Your task to perform on an android device: turn off smart reply in the gmail app Image 0: 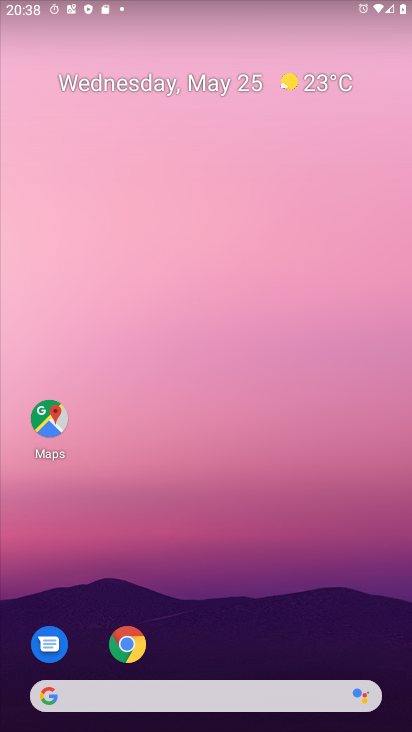
Step 0: drag from (308, 725) to (240, 205)
Your task to perform on an android device: turn off smart reply in the gmail app Image 1: 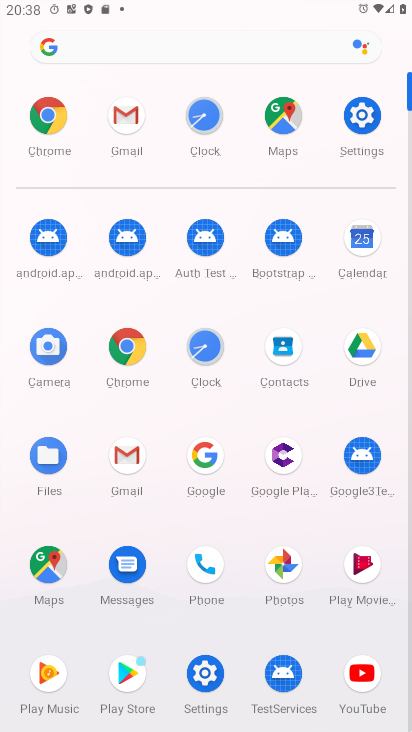
Step 1: click (132, 470)
Your task to perform on an android device: turn off smart reply in the gmail app Image 2: 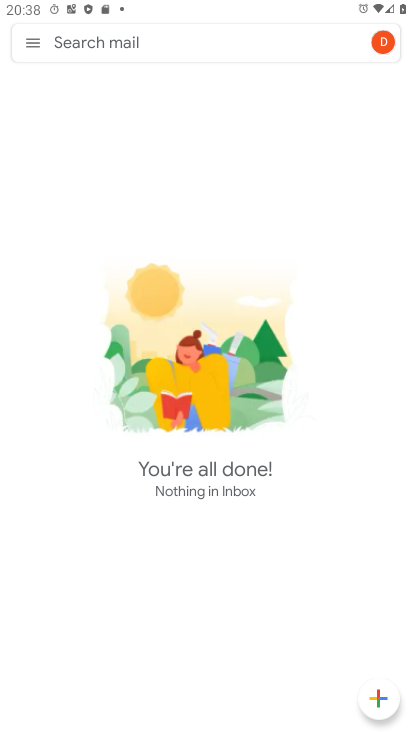
Step 2: click (34, 46)
Your task to perform on an android device: turn off smart reply in the gmail app Image 3: 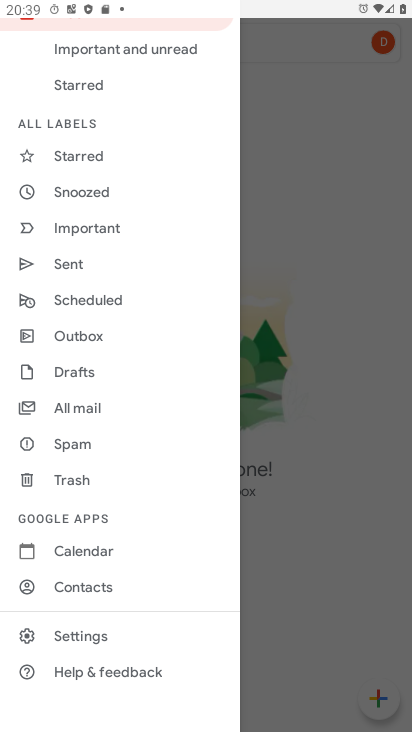
Step 3: click (89, 644)
Your task to perform on an android device: turn off smart reply in the gmail app Image 4: 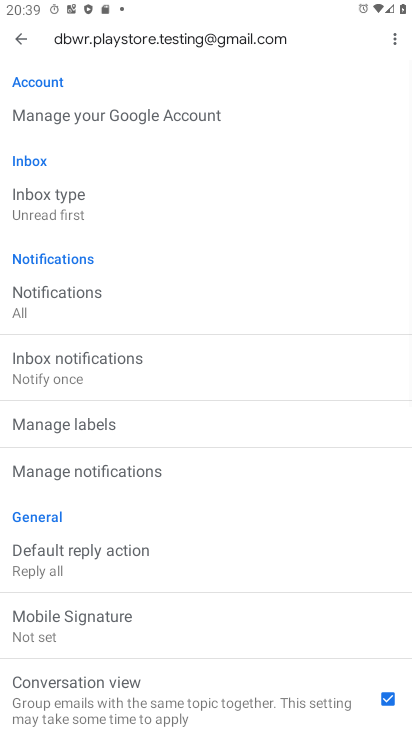
Step 4: drag from (212, 530) to (240, 296)
Your task to perform on an android device: turn off smart reply in the gmail app Image 5: 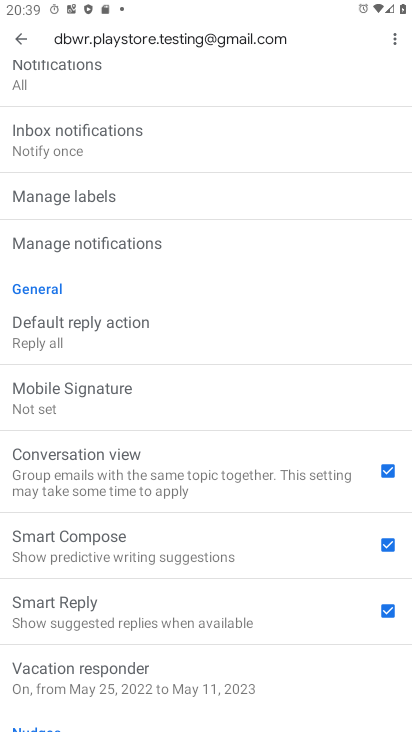
Step 5: click (383, 608)
Your task to perform on an android device: turn off smart reply in the gmail app Image 6: 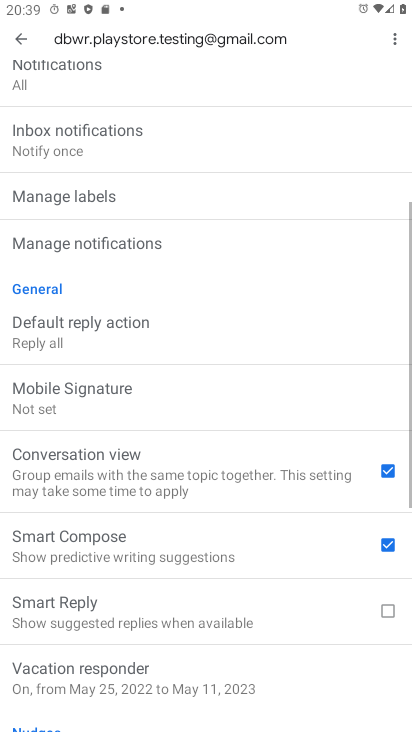
Step 6: task complete